Your task to perform on an android device: Go to CNN.com Image 0: 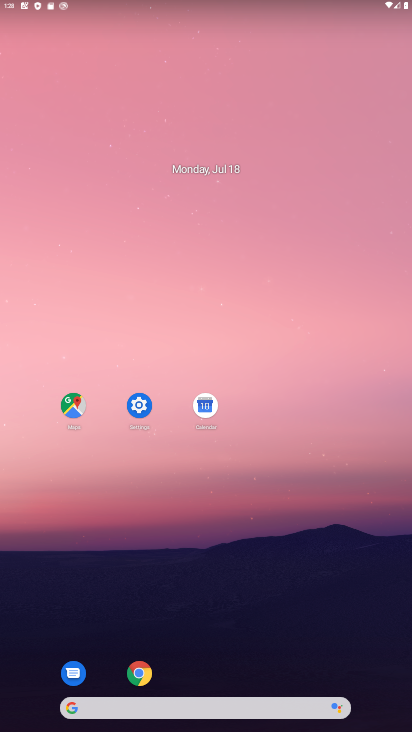
Step 0: click (136, 674)
Your task to perform on an android device: Go to CNN.com Image 1: 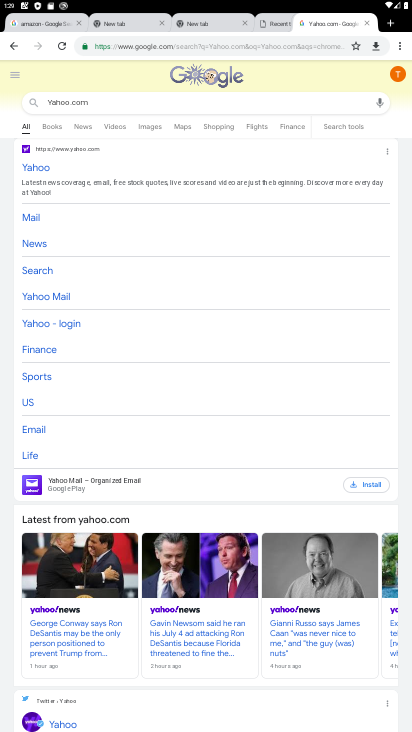
Step 1: click (325, 48)
Your task to perform on an android device: Go to CNN.com Image 2: 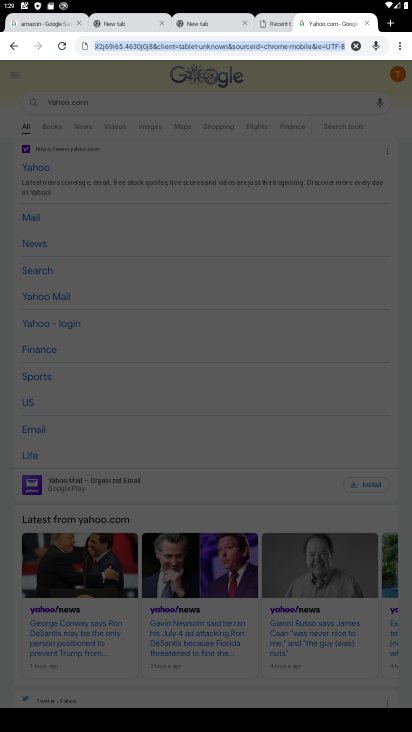
Step 2: click (356, 48)
Your task to perform on an android device: Go to CNN.com Image 3: 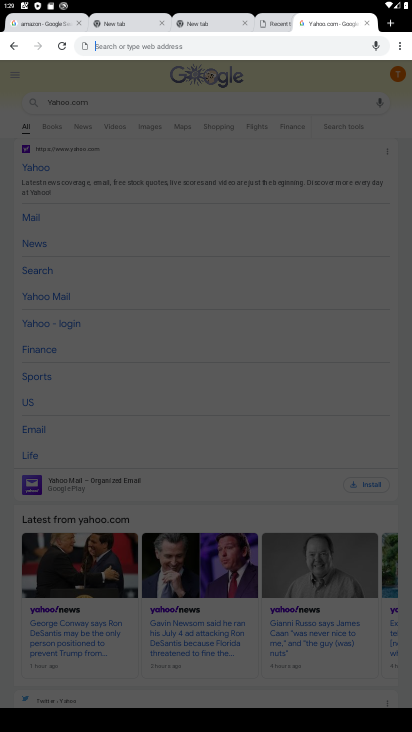
Step 3: type "CNN.com"
Your task to perform on an android device: Go to CNN.com Image 4: 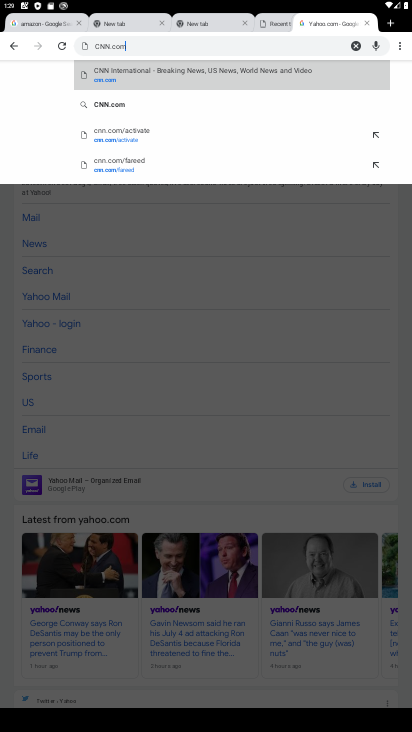
Step 4: click (117, 105)
Your task to perform on an android device: Go to CNN.com Image 5: 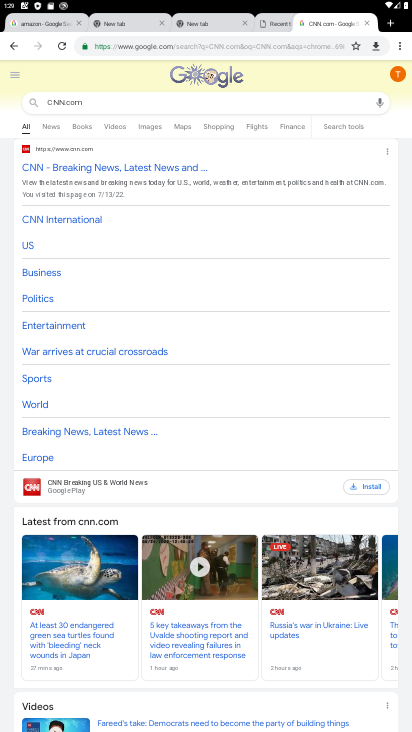
Step 5: task complete